Your task to perform on an android device: Go to accessibility settings Image 0: 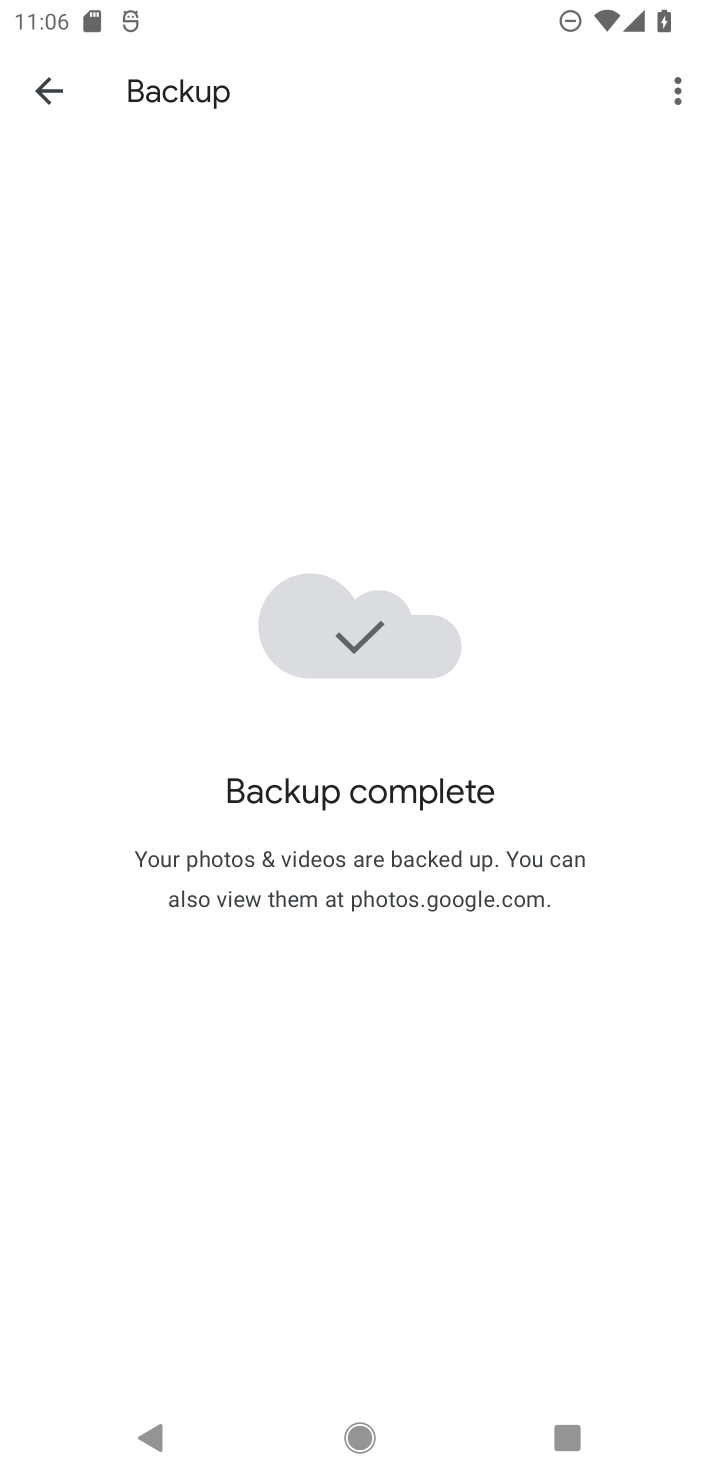
Step 0: click (357, 1437)
Your task to perform on an android device: Go to accessibility settings Image 1: 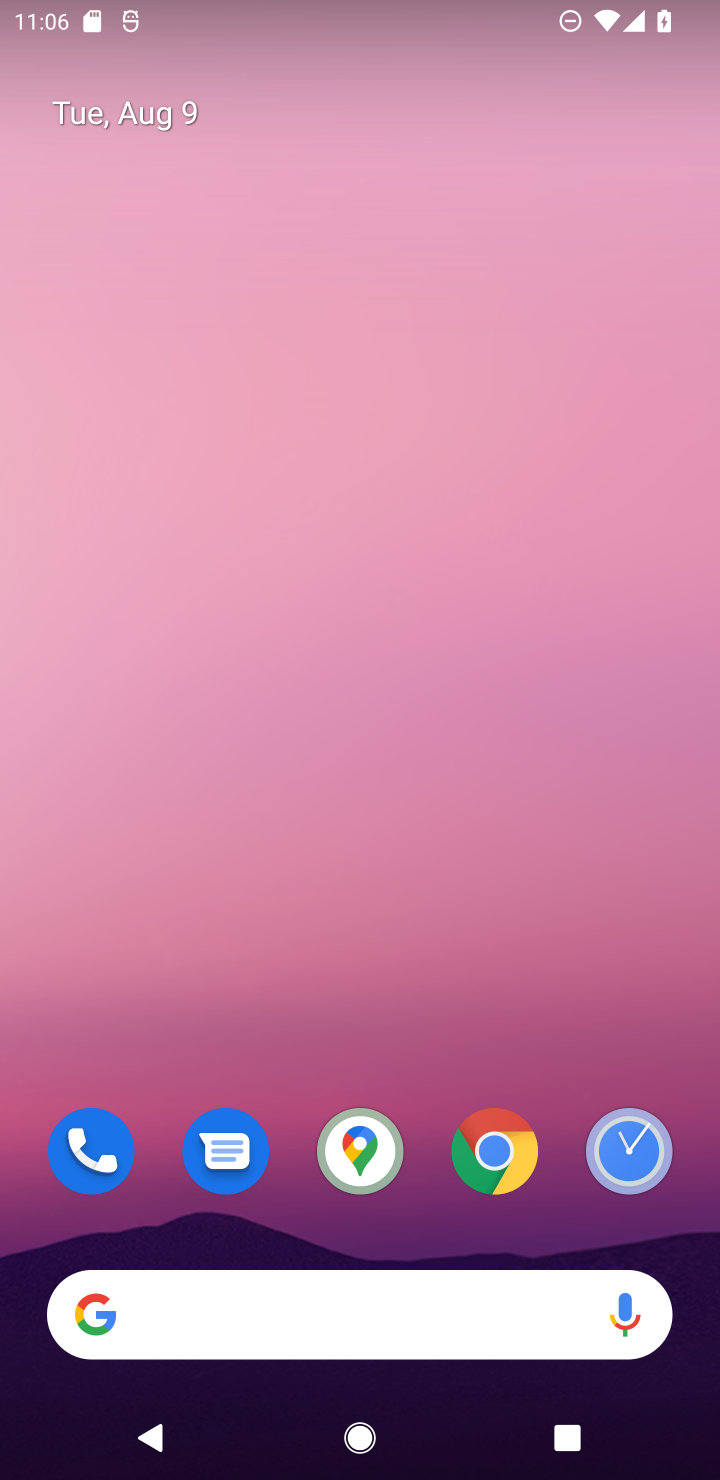
Step 1: drag from (407, 1206) to (488, 393)
Your task to perform on an android device: Go to accessibility settings Image 2: 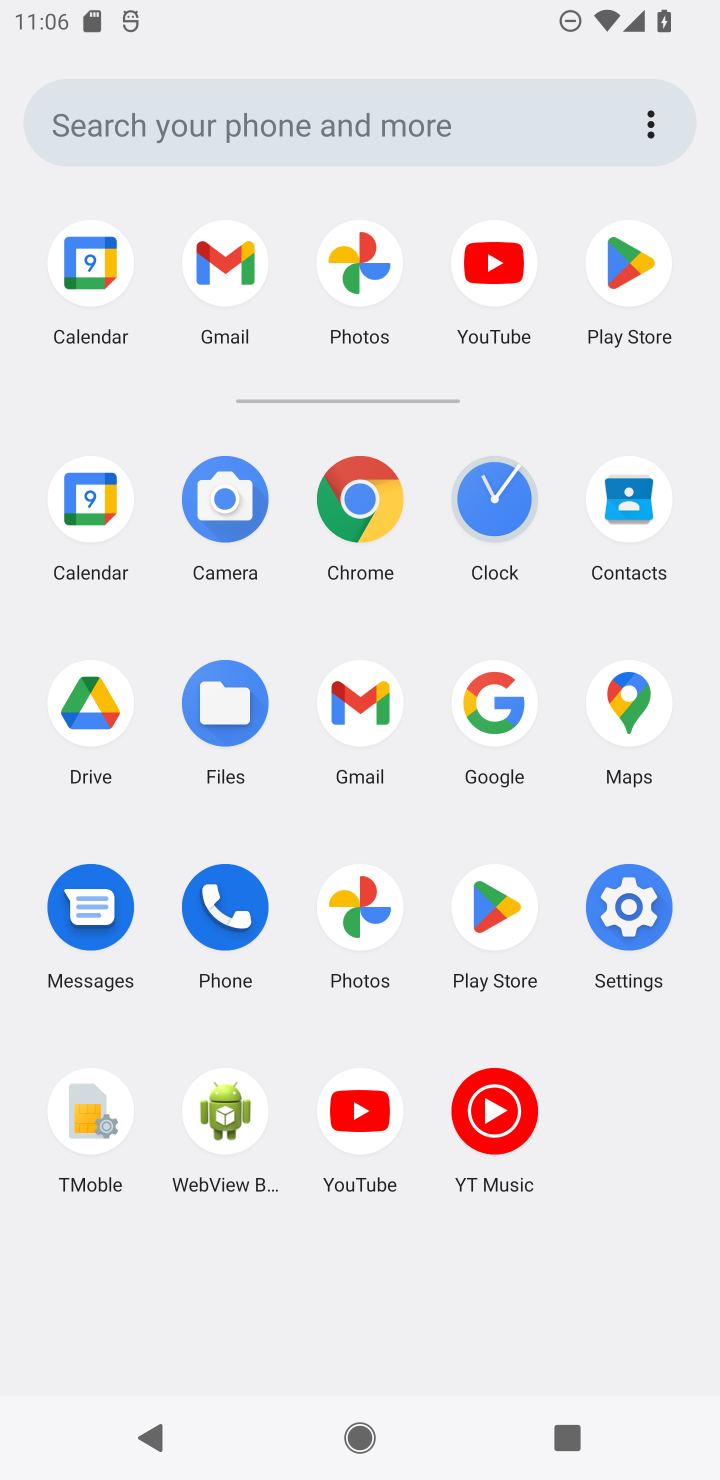
Step 2: click (664, 897)
Your task to perform on an android device: Go to accessibility settings Image 3: 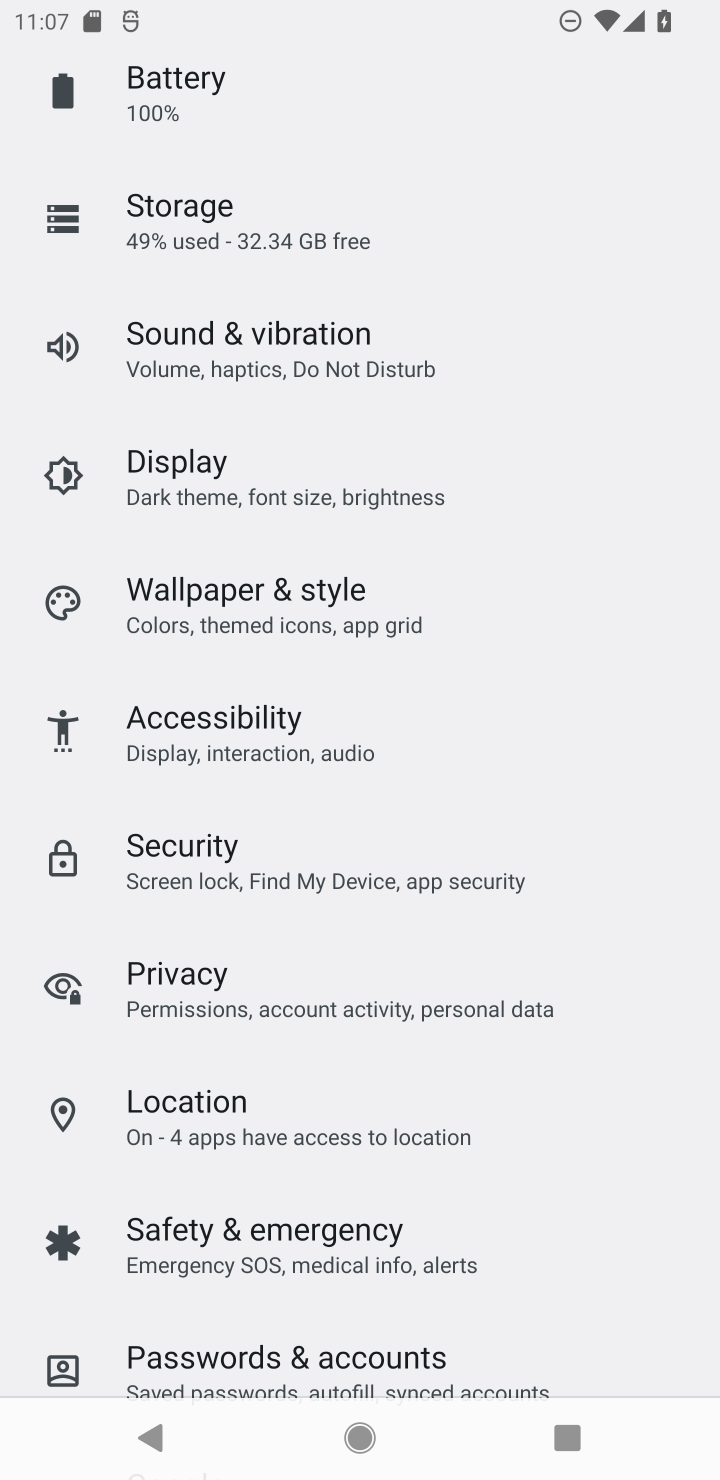
Step 3: click (241, 715)
Your task to perform on an android device: Go to accessibility settings Image 4: 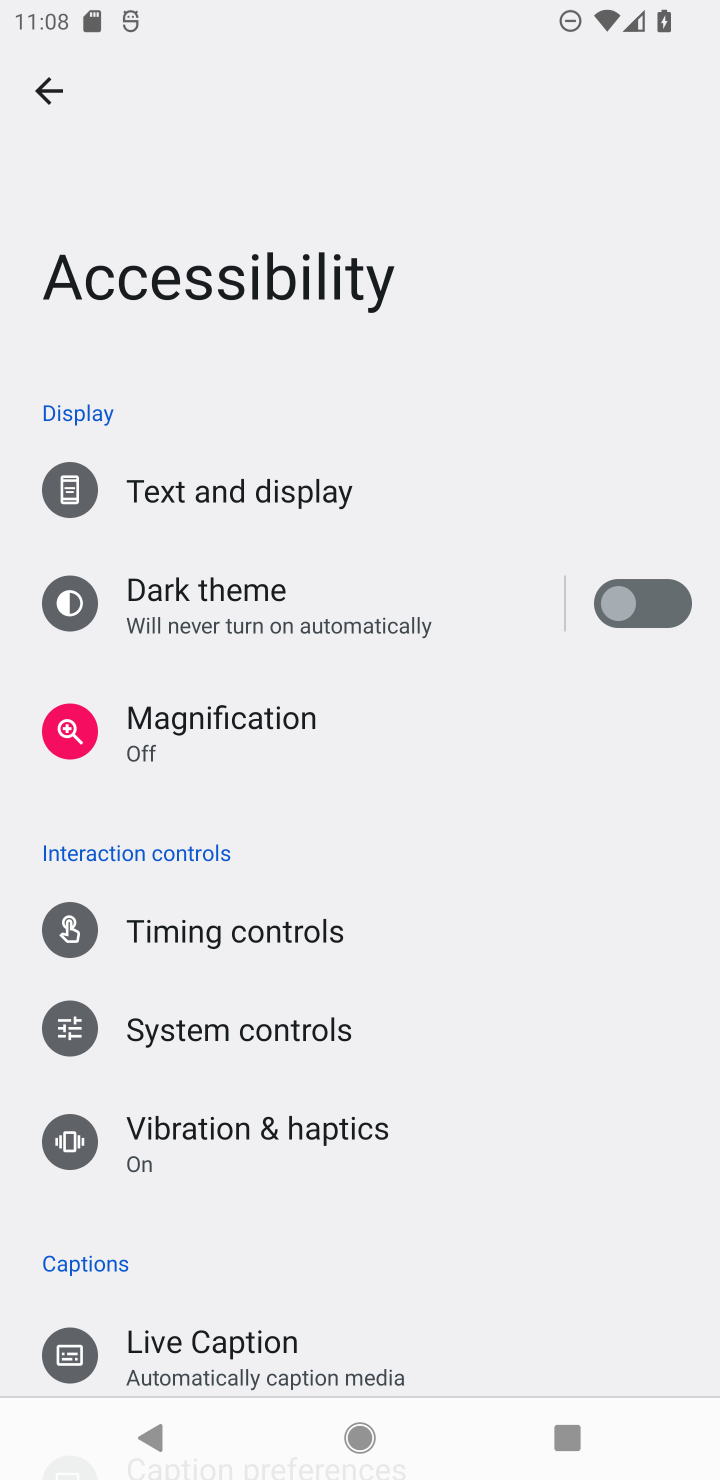
Step 4: task complete